Your task to perform on an android device: Show me popular games on the Play Store Image 0: 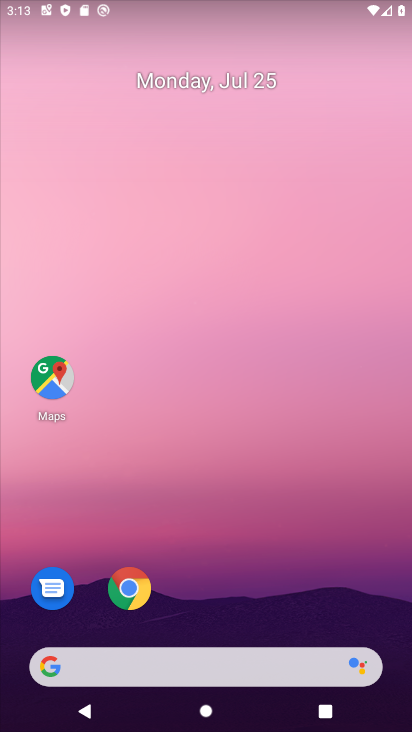
Step 0: drag from (310, 607) to (256, 85)
Your task to perform on an android device: Show me popular games on the Play Store Image 1: 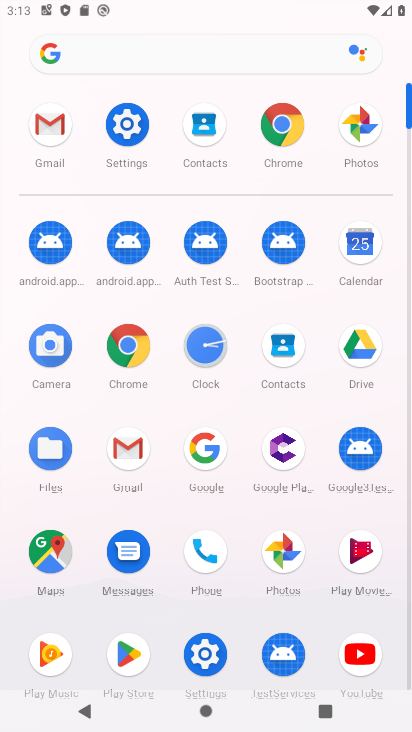
Step 1: click (115, 654)
Your task to perform on an android device: Show me popular games on the Play Store Image 2: 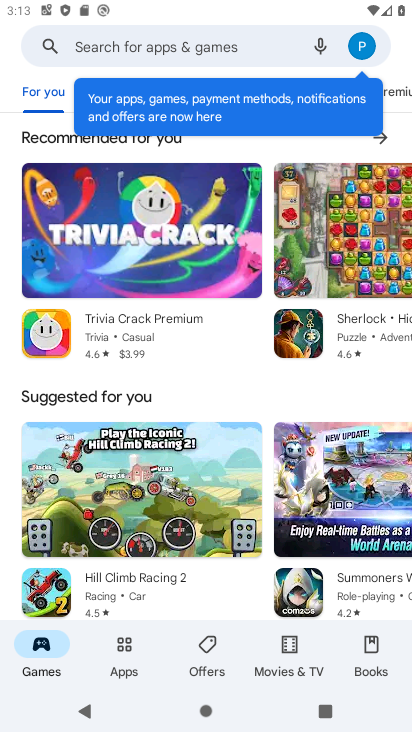
Step 2: task complete